Your task to perform on an android device: Open notification settings Image 0: 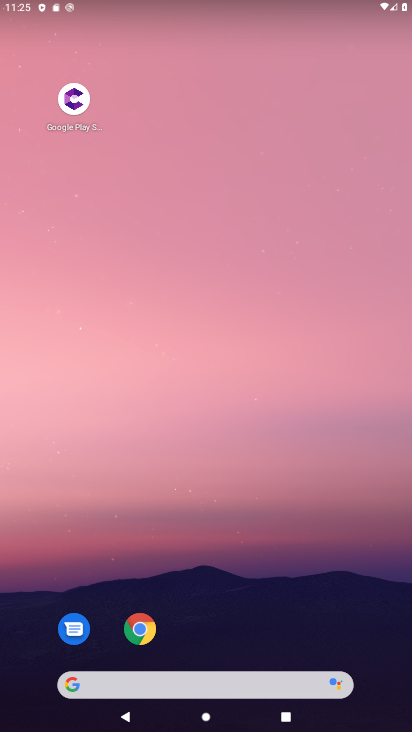
Step 0: drag from (356, 619) to (304, 88)
Your task to perform on an android device: Open notification settings Image 1: 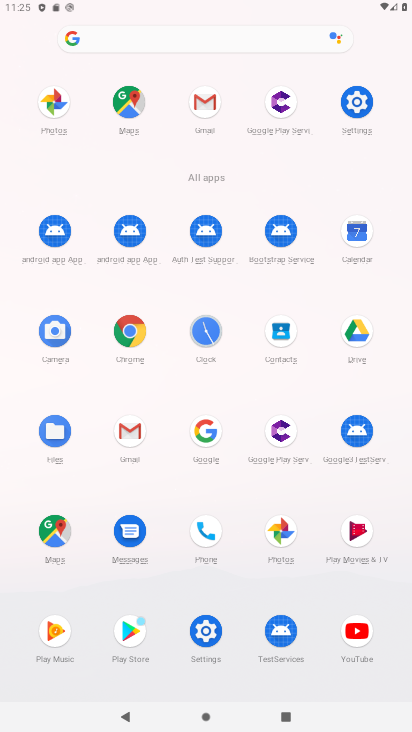
Step 1: click (207, 630)
Your task to perform on an android device: Open notification settings Image 2: 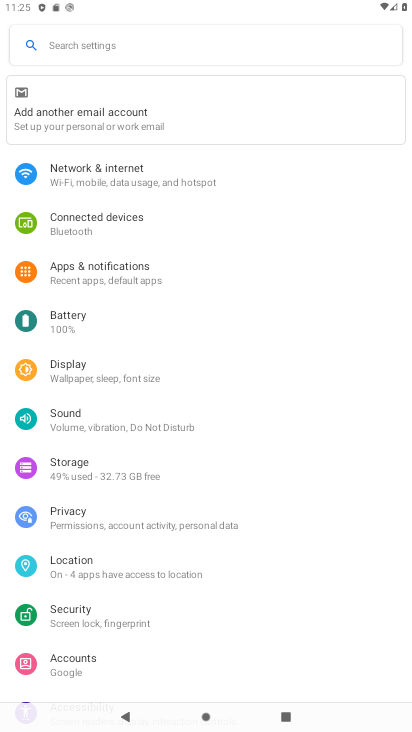
Step 2: click (92, 267)
Your task to perform on an android device: Open notification settings Image 3: 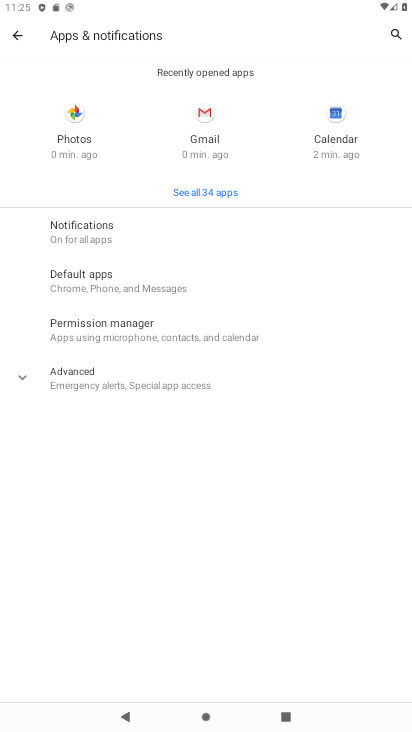
Step 3: click (84, 229)
Your task to perform on an android device: Open notification settings Image 4: 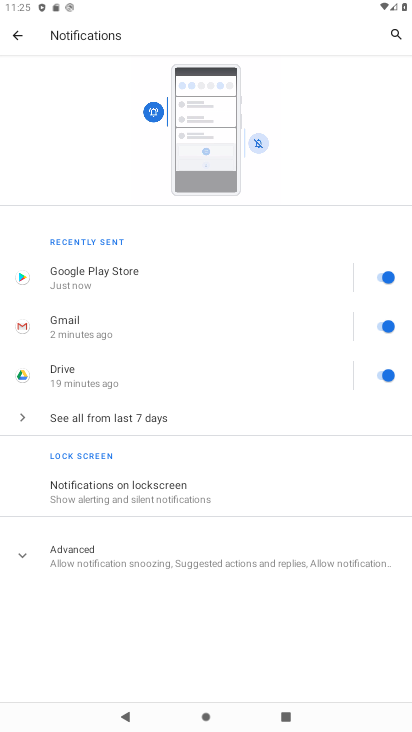
Step 4: task complete